Your task to perform on an android device: open app "Messenger Lite" (install if not already installed) Image 0: 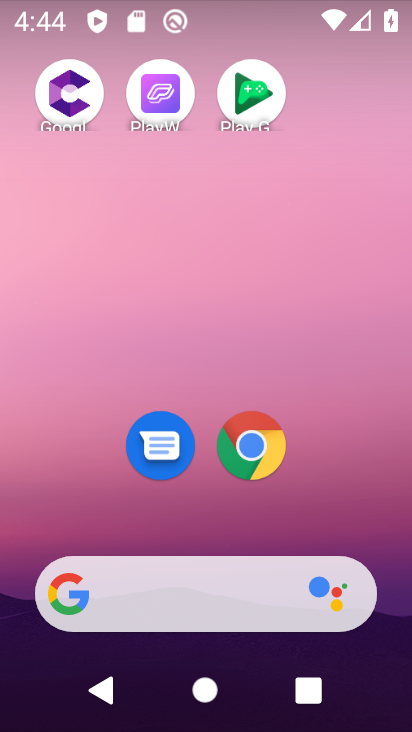
Step 0: drag from (233, 603) to (215, 0)
Your task to perform on an android device: open app "Messenger Lite" (install if not already installed) Image 1: 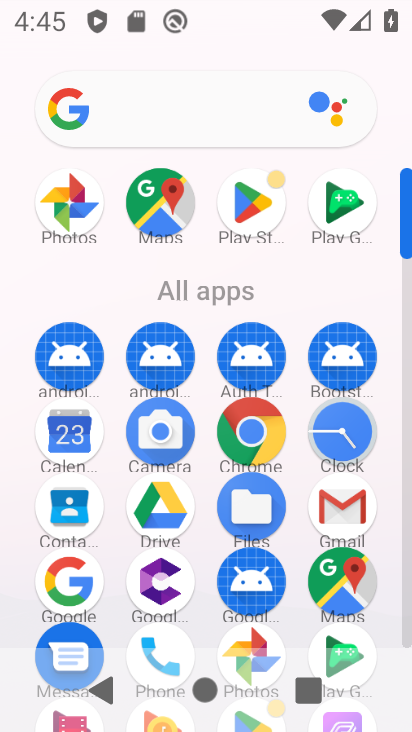
Step 1: click (249, 208)
Your task to perform on an android device: open app "Messenger Lite" (install if not already installed) Image 2: 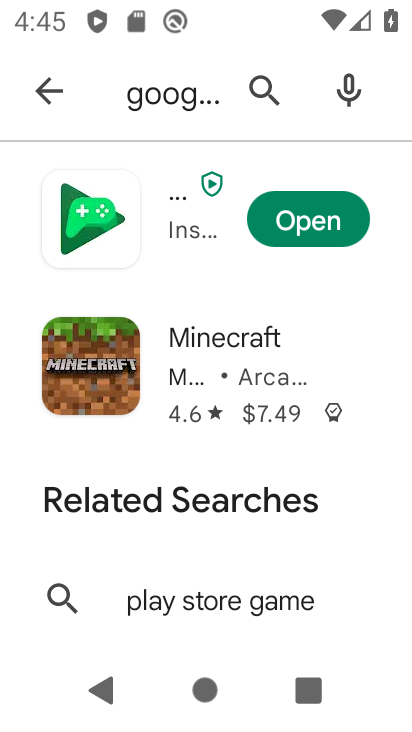
Step 2: press back button
Your task to perform on an android device: open app "Messenger Lite" (install if not already installed) Image 3: 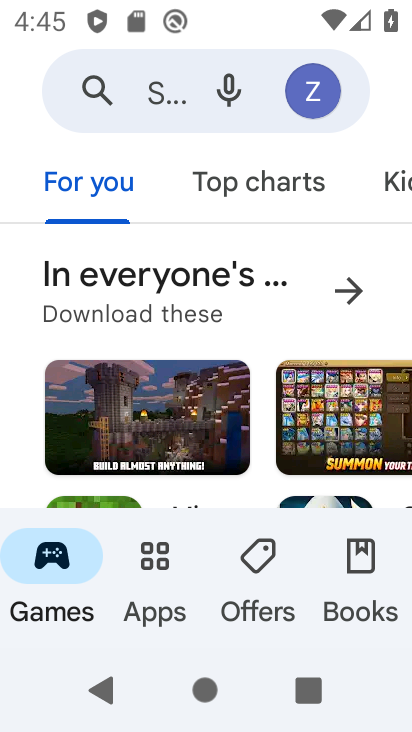
Step 3: click (153, 101)
Your task to perform on an android device: open app "Messenger Lite" (install if not already installed) Image 4: 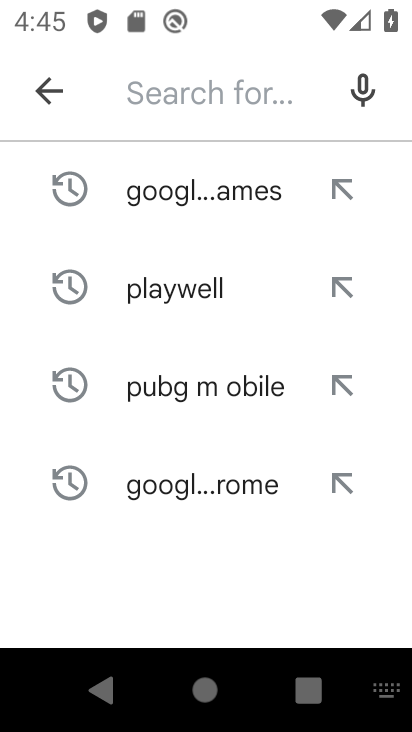
Step 4: type "Messenger Lite"
Your task to perform on an android device: open app "Messenger Lite" (install if not already installed) Image 5: 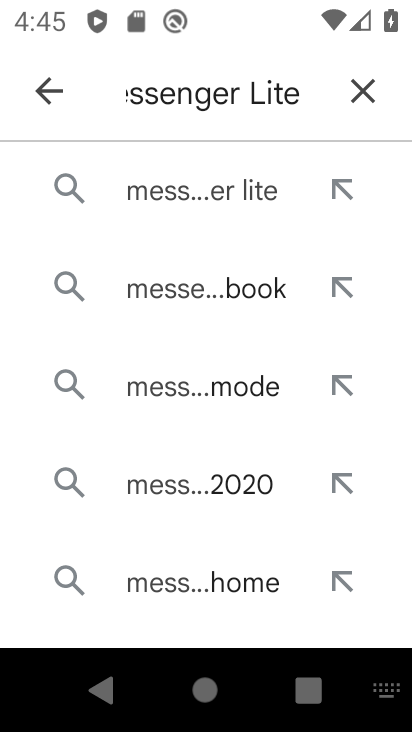
Step 5: click (209, 200)
Your task to perform on an android device: open app "Messenger Lite" (install if not already installed) Image 6: 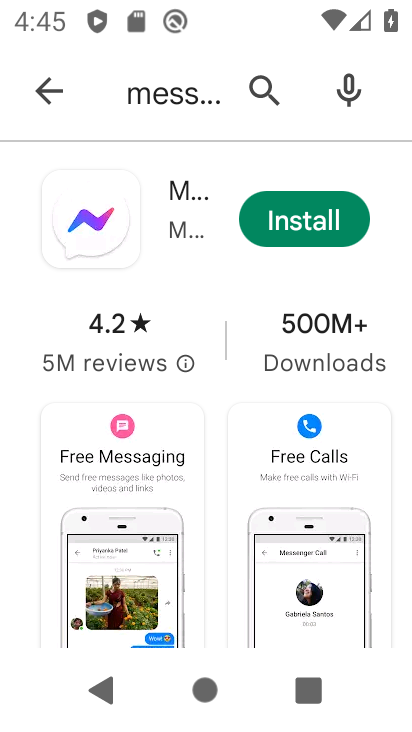
Step 6: click (308, 221)
Your task to perform on an android device: open app "Messenger Lite" (install if not already installed) Image 7: 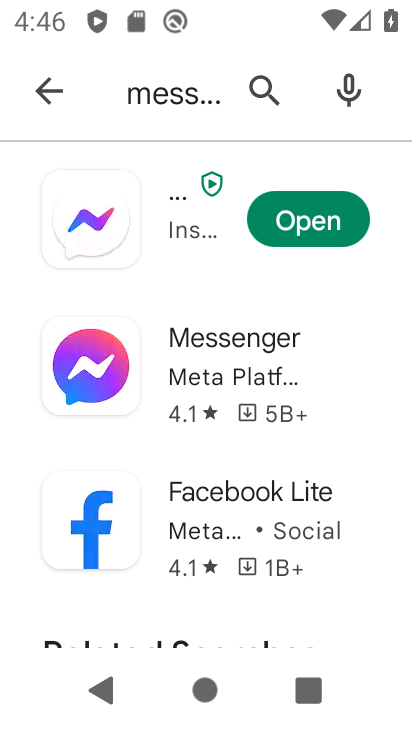
Step 7: click (329, 225)
Your task to perform on an android device: open app "Messenger Lite" (install if not already installed) Image 8: 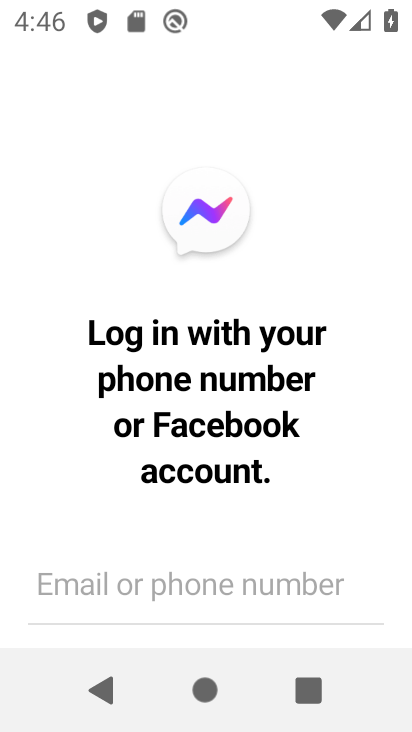
Step 8: task complete